Your task to perform on an android device: toggle improve location accuracy Image 0: 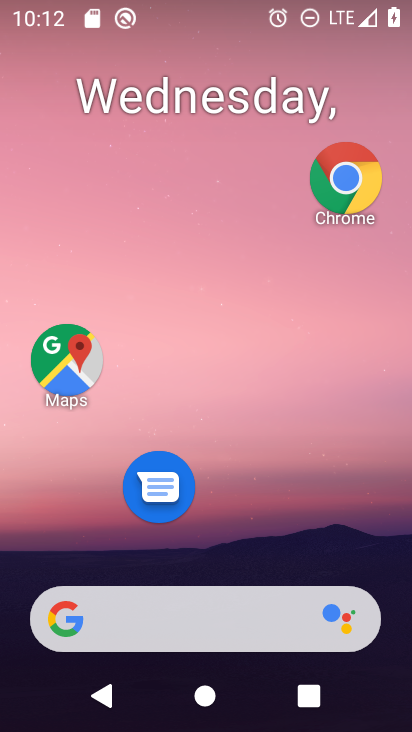
Step 0: drag from (257, 504) to (227, 216)
Your task to perform on an android device: toggle improve location accuracy Image 1: 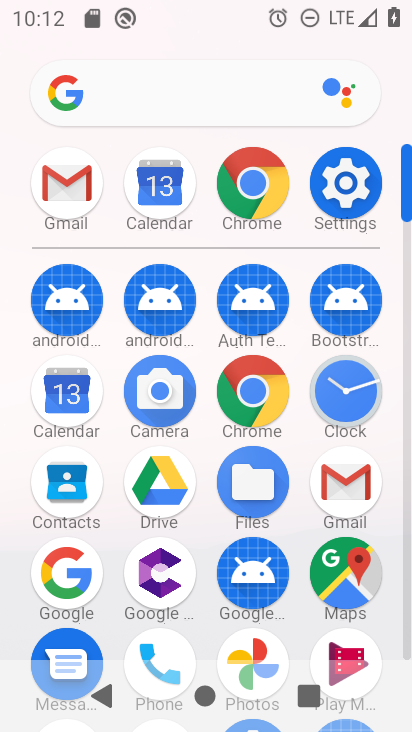
Step 1: drag from (228, 470) to (246, 253)
Your task to perform on an android device: toggle improve location accuracy Image 2: 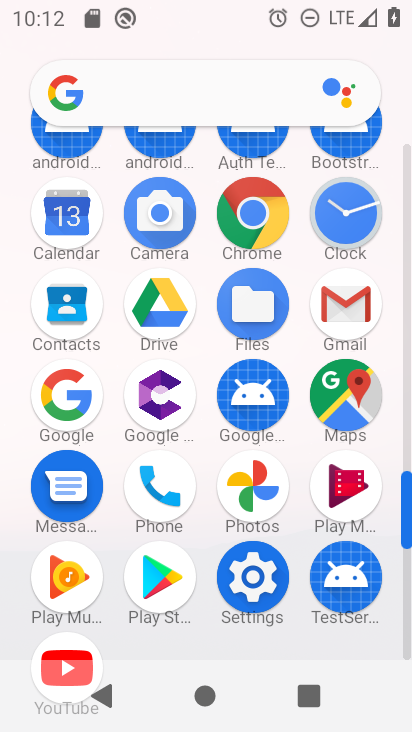
Step 2: click (261, 571)
Your task to perform on an android device: toggle improve location accuracy Image 3: 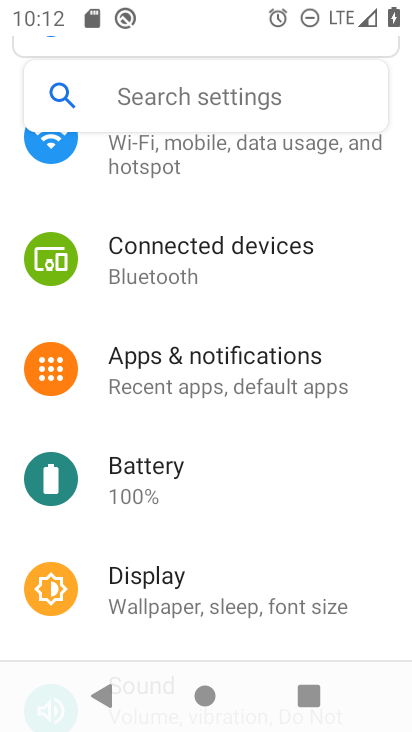
Step 3: drag from (196, 355) to (180, 548)
Your task to perform on an android device: toggle improve location accuracy Image 4: 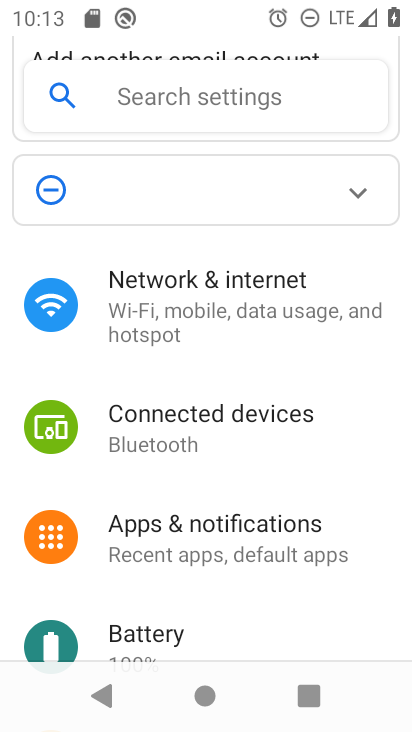
Step 4: drag from (223, 598) to (213, 322)
Your task to perform on an android device: toggle improve location accuracy Image 5: 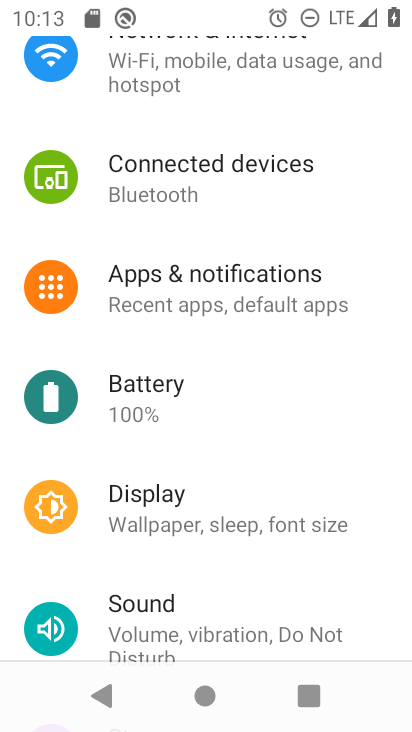
Step 5: drag from (199, 492) to (302, 0)
Your task to perform on an android device: toggle improve location accuracy Image 6: 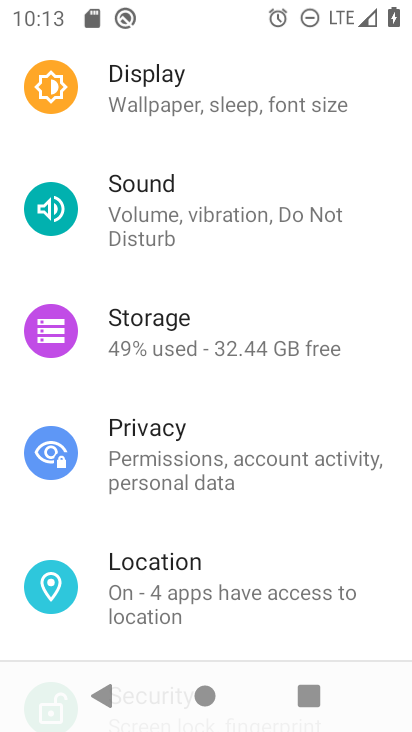
Step 6: click (202, 596)
Your task to perform on an android device: toggle improve location accuracy Image 7: 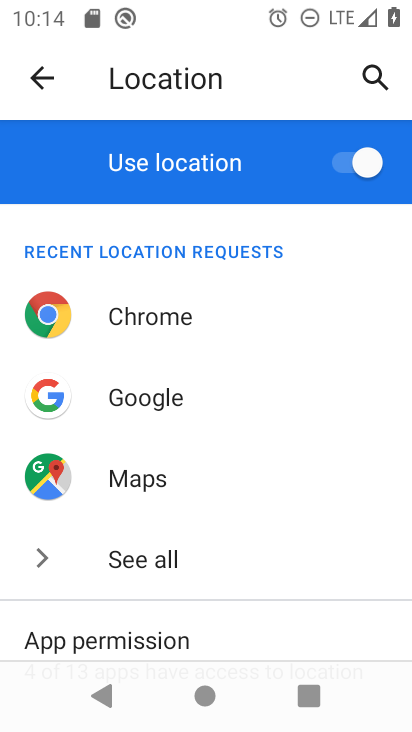
Step 7: drag from (222, 529) to (246, 145)
Your task to perform on an android device: toggle improve location accuracy Image 8: 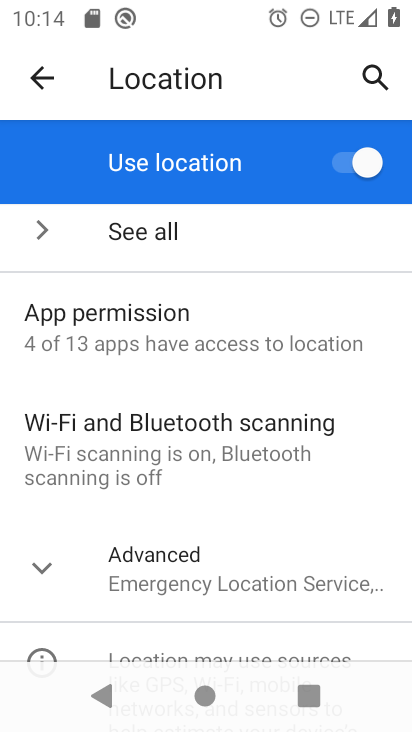
Step 8: drag from (118, 536) to (133, 202)
Your task to perform on an android device: toggle improve location accuracy Image 9: 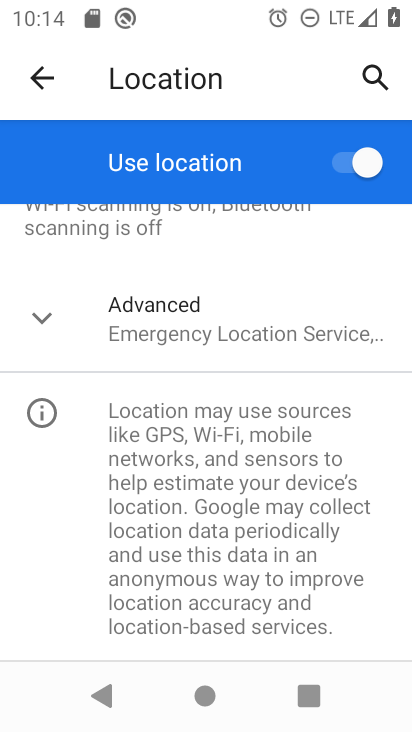
Step 9: click (92, 334)
Your task to perform on an android device: toggle improve location accuracy Image 10: 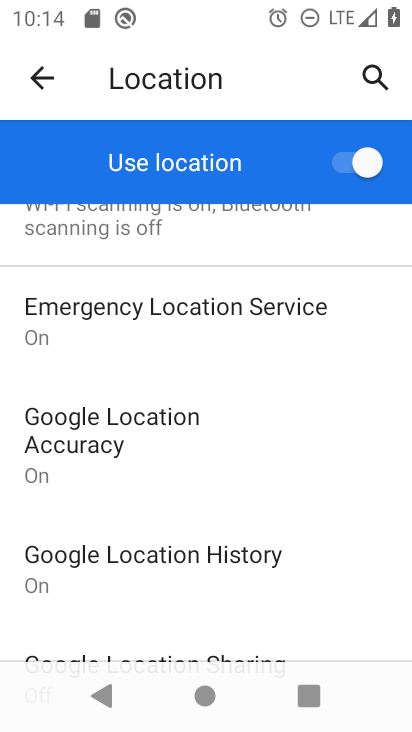
Step 10: click (206, 436)
Your task to perform on an android device: toggle improve location accuracy Image 11: 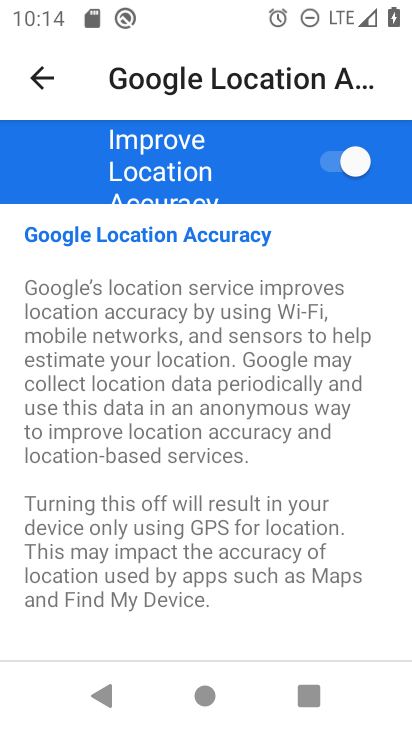
Step 11: click (339, 162)
Your task to perform on an android device: toggle improve location accuracy Image 12: 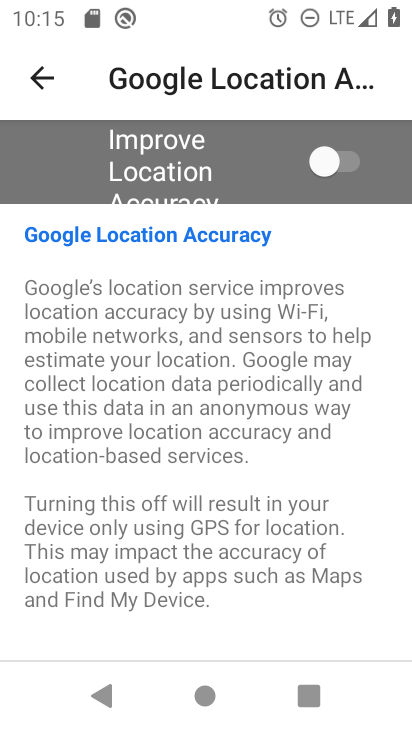
Step 12: task complete